Your task to perform on an android device: toggle notifications settings in the gmail app Image 0: 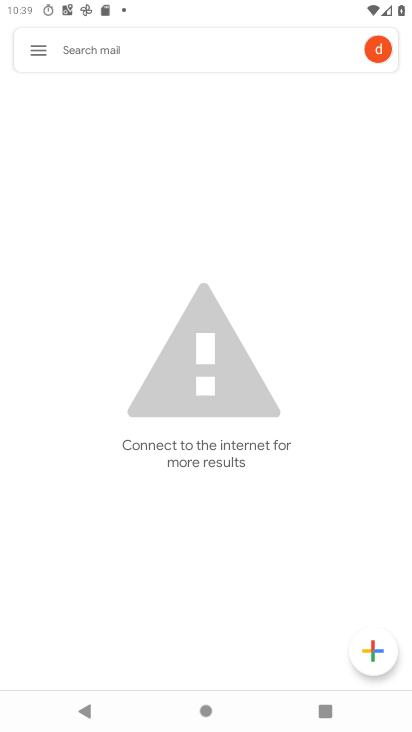
Step 0: press back button
Your task to perform on an android device: toggle notifications settings in the gmail app Image 1: 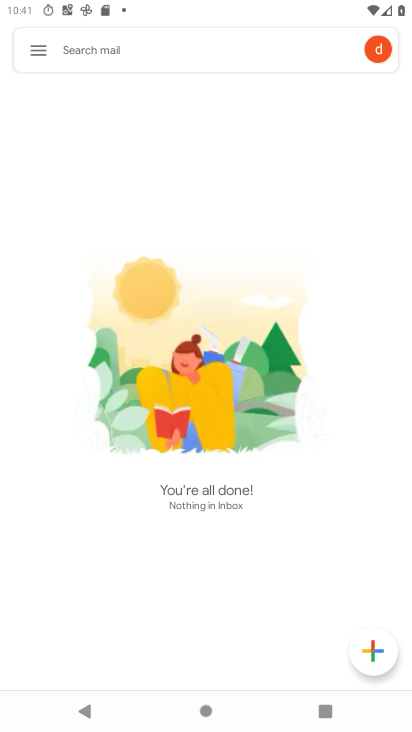
Step 1: click (390, 491)
Your task to perform on an android device: toggle notifications settings in the gmail app Image 2: 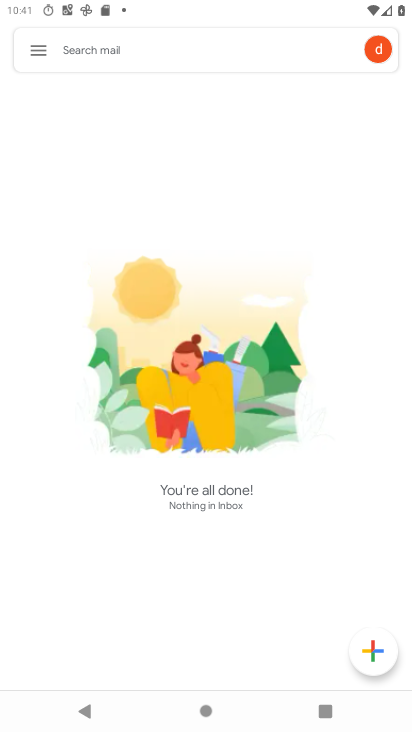
Step 2: press back button
Your task to perform on an android device: toggle notifications settings in the gmail app Image 3: 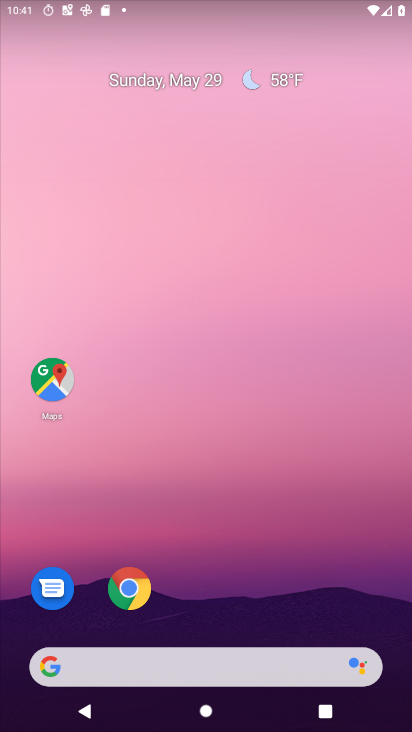
Step 3: drag from (227, 521) to (193, 280)
Your task to perform on an android device: toggle notifications settings in the gmail app Image 4: 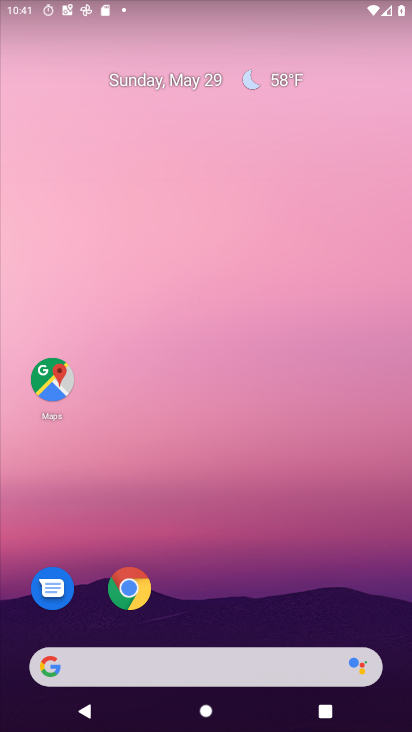
Step 4: drag from (256, 668) to (210, 219)
Your task to perform on an android device: toggle notifications settings in the gmail app Image 5: 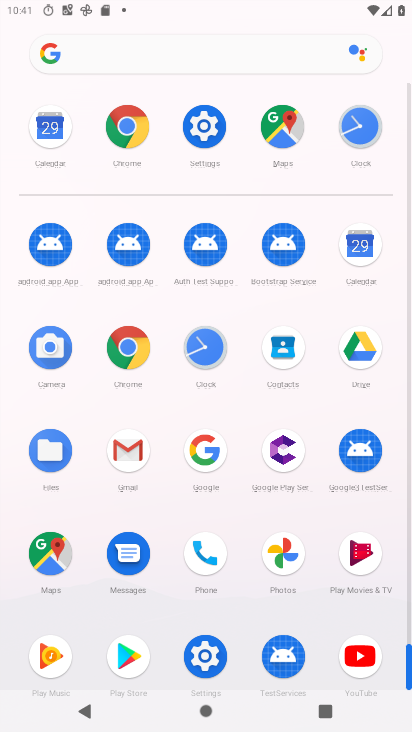
Step 5: drag from (244, 542) to (198, 83)
Your task to perform on an android device: toggle notifications settings in the gmail app Image 6: 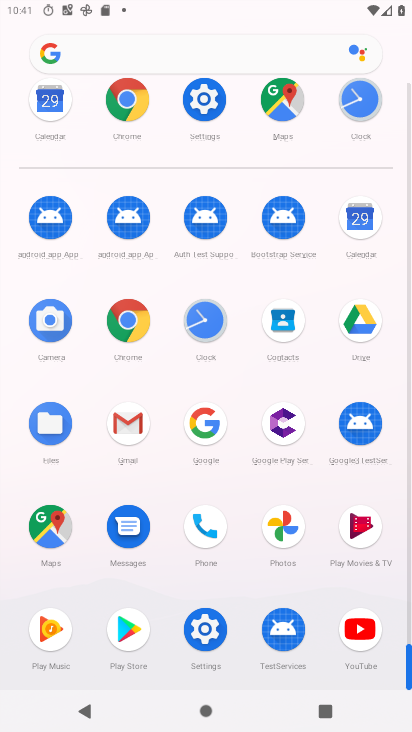
Step 6: click (130, 424)
Your task to perform on an android device: toggle notifications settings in the gmail app Image 7: 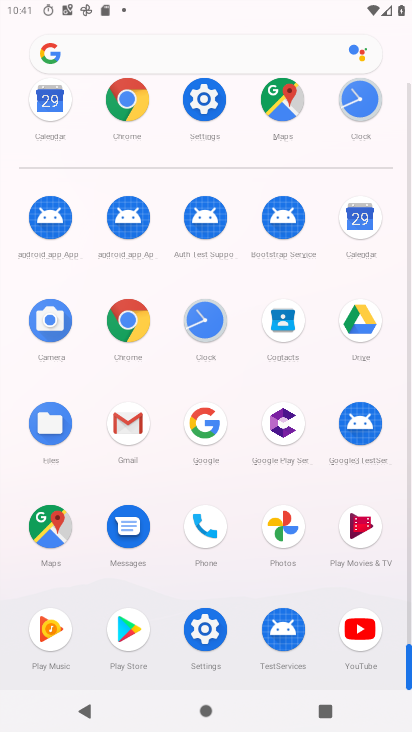
Step 7: click (130, 424)
Your task to perform on an android device: toggle notifications settings in the gmail app Image 8: 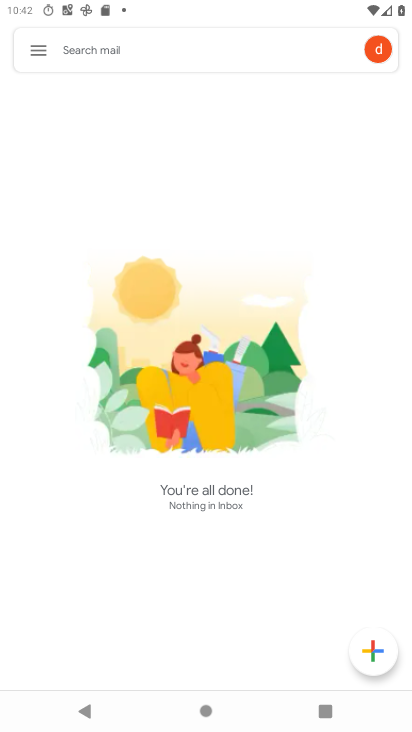
Step 8: click (34, 47)
Your task to perform on an android device: toggle notifications settings in the gmail app Image 9: 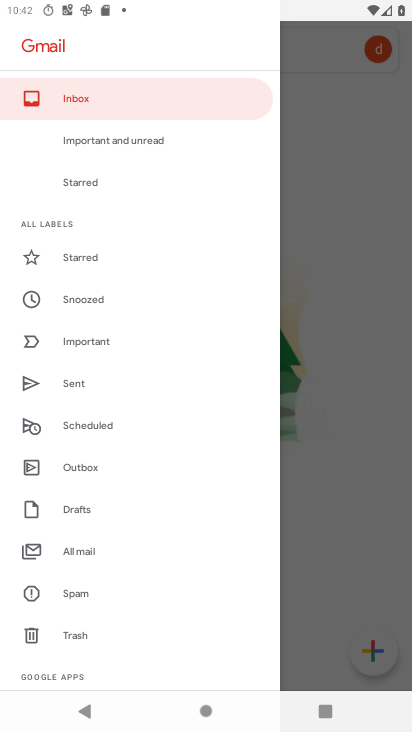
Step 9: drag from (94, 551) to (119, 267)
Your task to perform on an android device: toggle notifications settings in the gmail app Image 10: 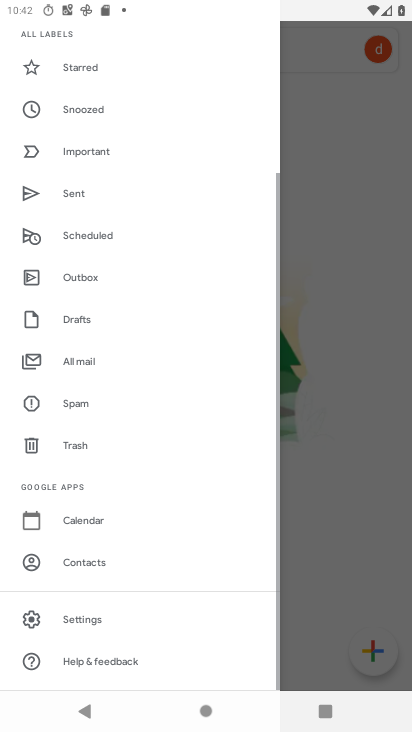
Step 10: drag from (99, 497) to (103, 284)
Your task to perform on an android device: toggle notifications settings in the gmail app Image 11: 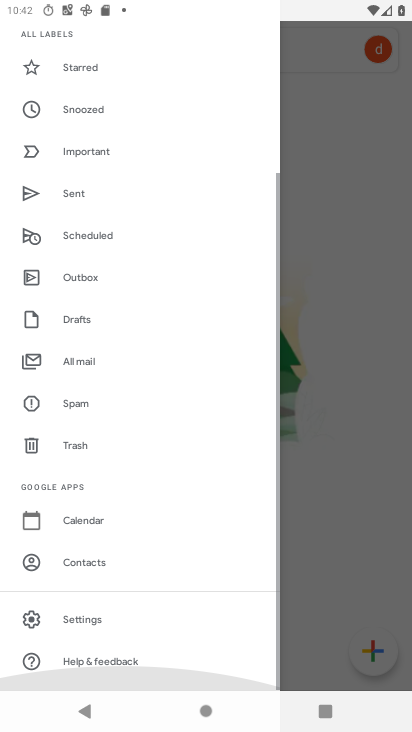
Step 11: drag from (87, 603) to (118, 369)
Your task to perform on an android device: toggle notifications settings in the gmail app Image 12: 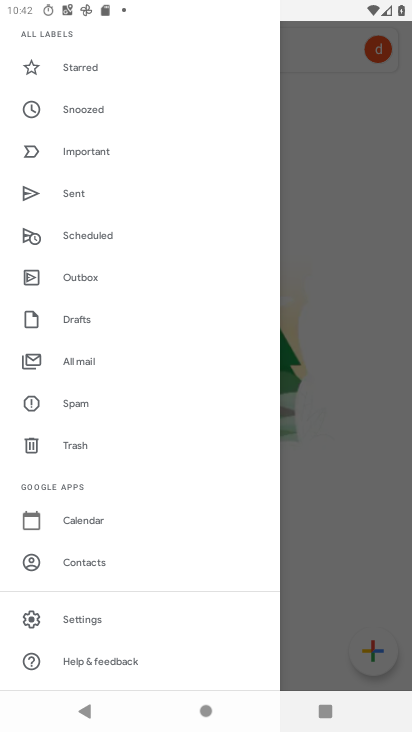
Step 12: click (77, 613)
Your task to perform on an android device: toggle notifications settings in the gmail app Image 13: 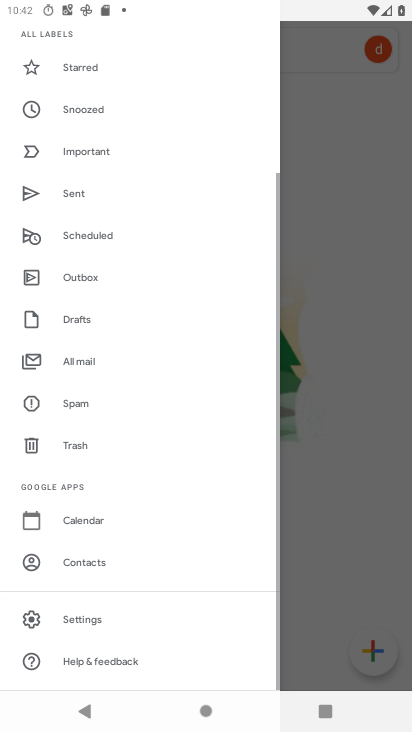
Step 13: click (79, 617)
Your task to perform on an android device: toggle notifications settings in the gmail app Image 14: 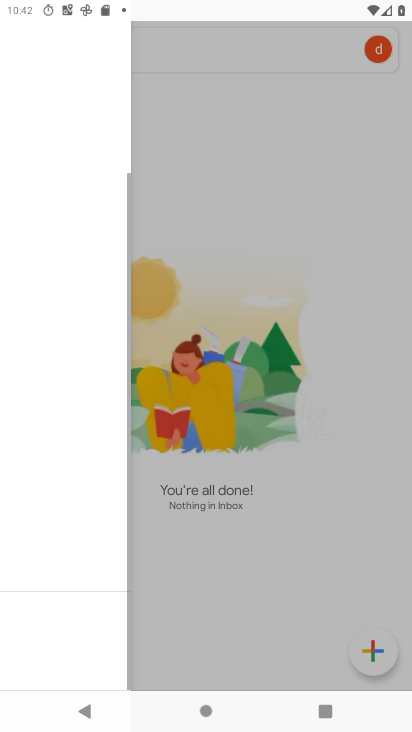
Step 14: click (81, 612)
Your task to perform on an android device: toggle notifications settings in the gmail app Image 15: 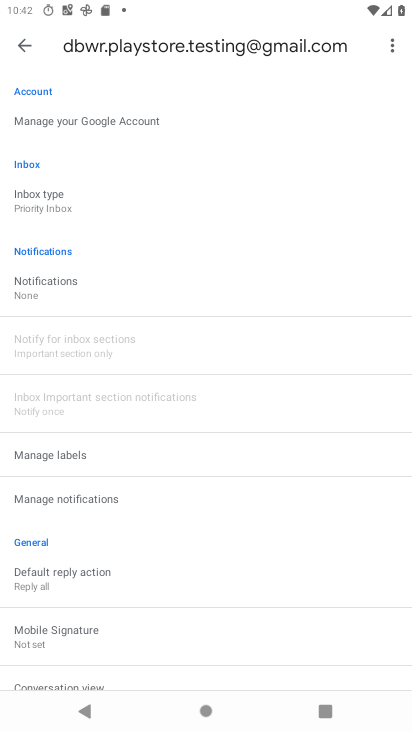
Step 15: click (54, 272)
Your task to perform on an android device: toggle notifications settings in the gmail app Image 16: 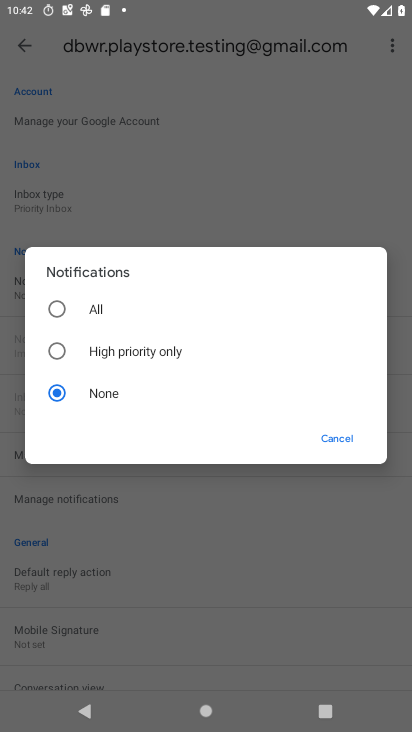
Step 16: click (55, 309)
Your task to perform on an android device: toggle notifications settings in the gmail app Image 17: 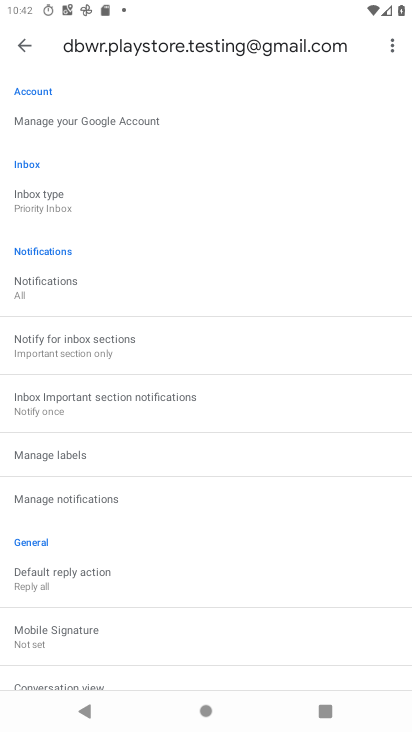
Step 17: task complete